Your task to perform on an android device: move a message to another label in the gmail app Image 0: 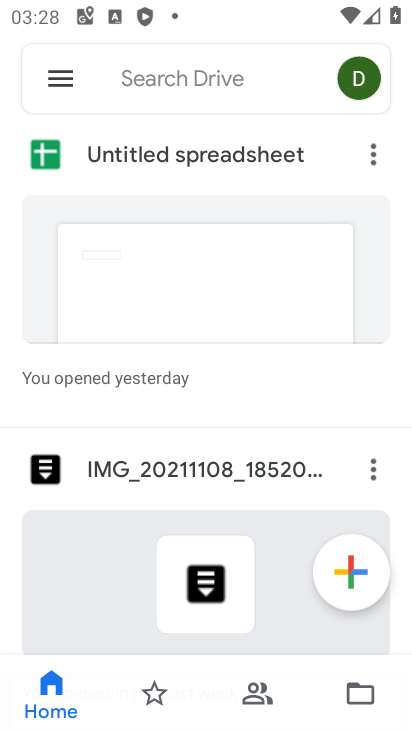
Step 0: press home button
Your task to perform on an android device: move a message to another label in the gmail app Image 1: 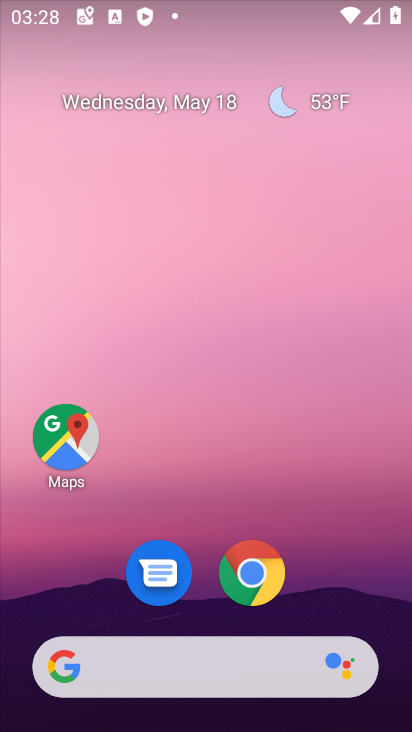
Step 1: drag from (194, 609) to (198, 307)
Your task to perform on an android device: move a message to another label in the gmail app Image 2: 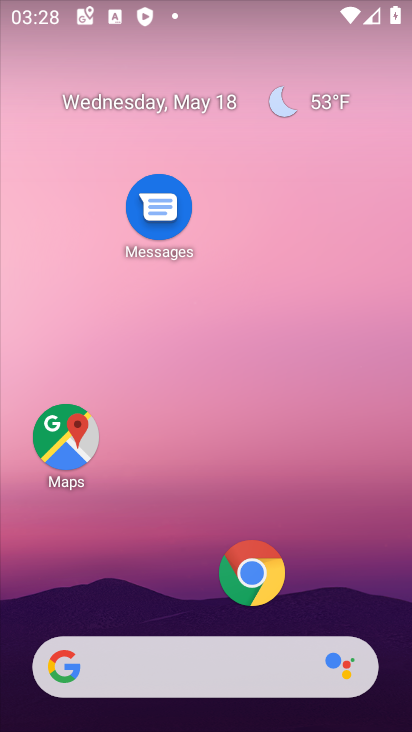
Step 2: drag from (190, 618) to (210, 203)
Your task to perform on an android device: move a message to another label in the gmail app Image 3: 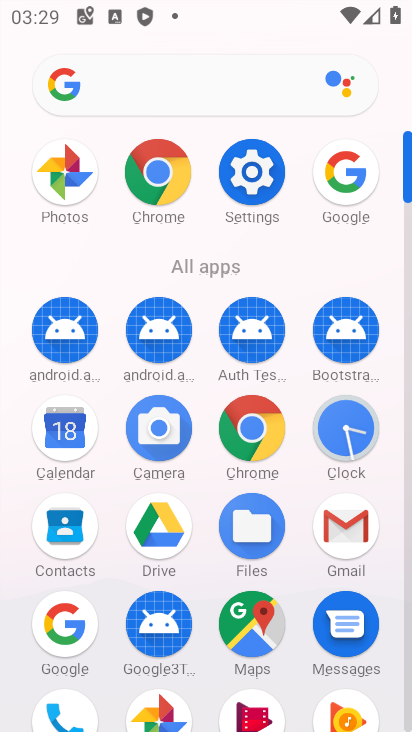
Step 3: click (339, 513)
Your task to perform on an android device: move a message to another label in the gmail app Image 4: 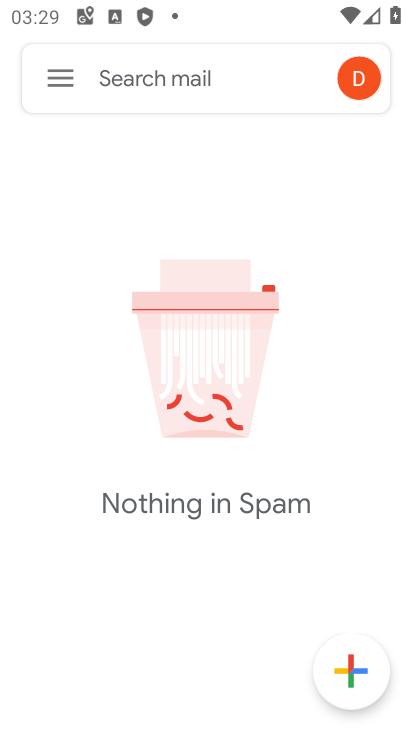
Step 4: click (58, 83)
Your task to perform on an android device: move a message to another label in the gmail app Image 5: 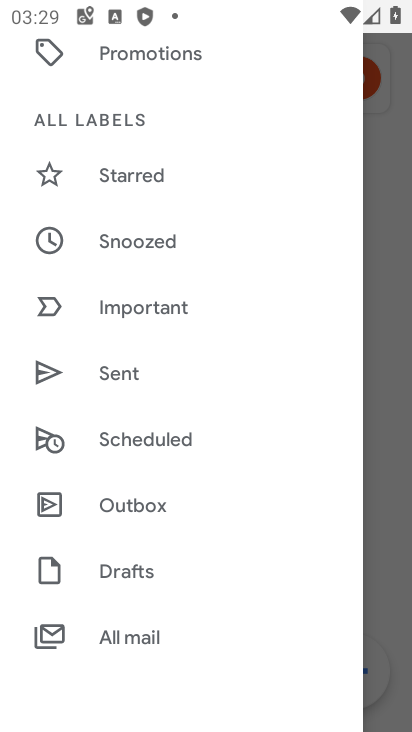
Step 5: drag from (170, 207) to (212, 382)
Your task to perform on an android device: move a message to another label in the gmail app Image 6: 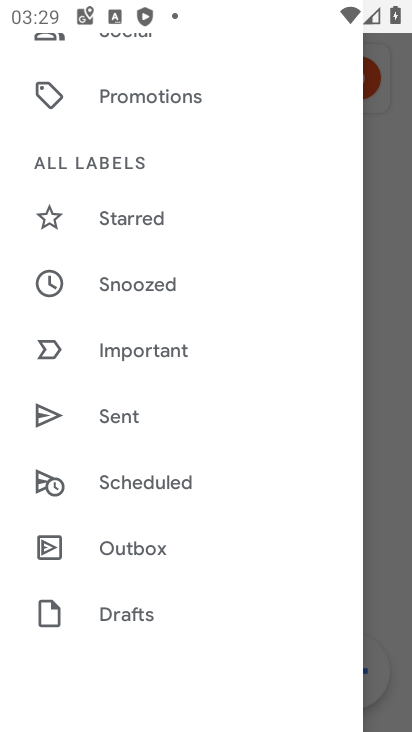
Step 6: drag from (154, 603) to (216, 416)
Your task to perform on an android device: move a message to another label in the gmail app Image 7: 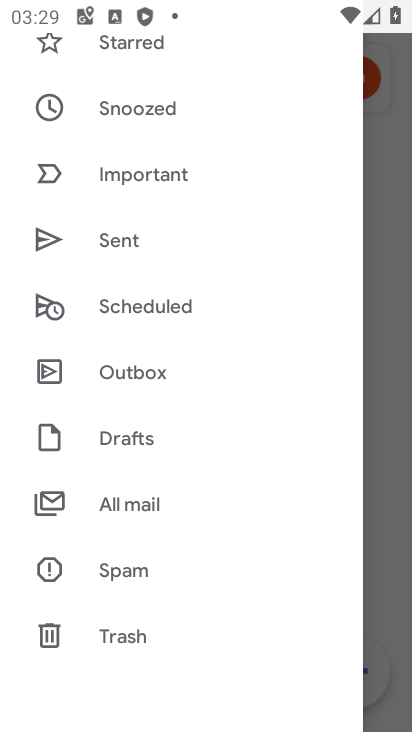
Step 7: click (176, 511)
Your task to perform on an android device: move a message to another label in the gmail app Image 8: 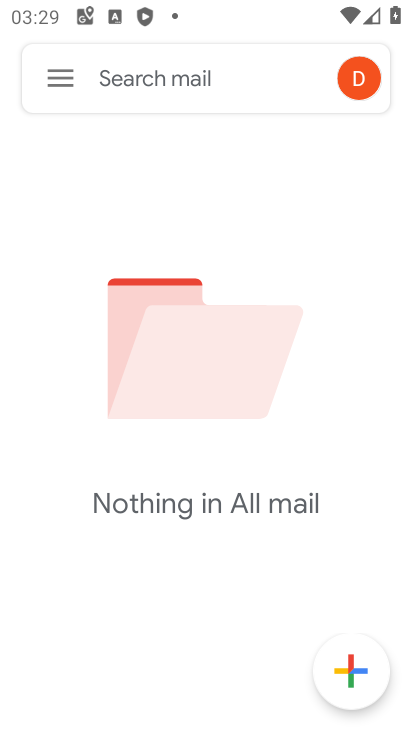
Step 8: task complete